Your task to perform on an android device: choose inbox layout in the gmail app Image 0: 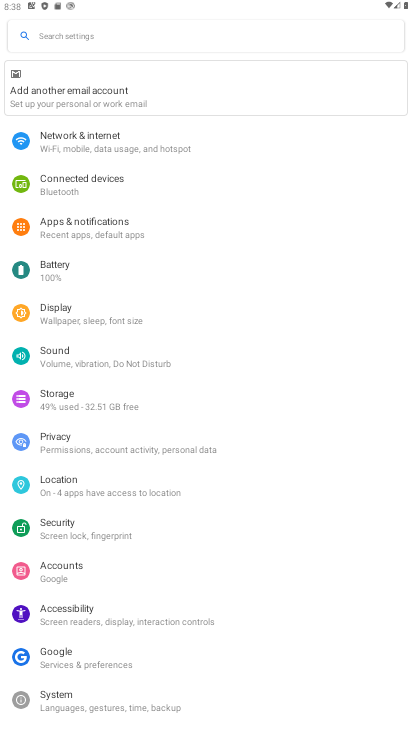
Step 0: press home button
Your task to perform on an android device: choose inbox layout in the gmail app Image 1: 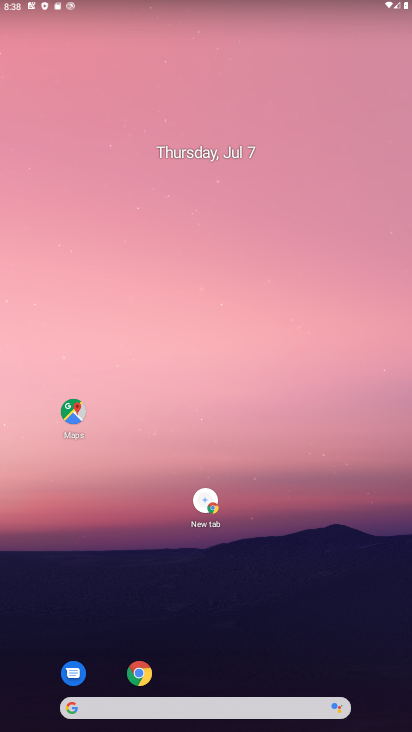
Step 1: drag from (302, 581) to (267, 121)
Your task to perform on an android device: choose inbox layout in the gmail app Image 2: 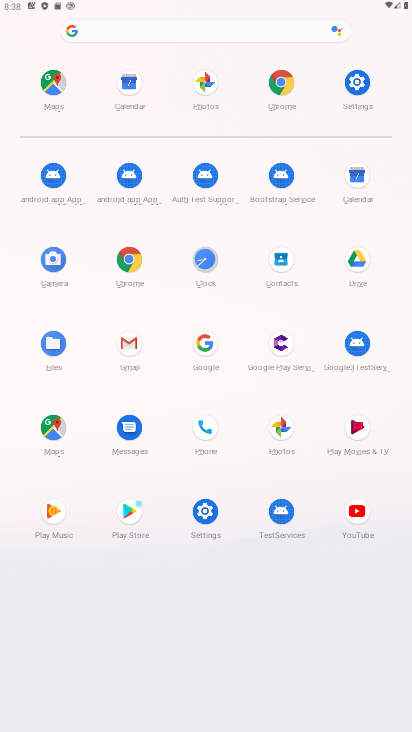
Step 2: click (121, 341)
Your task to perform on an android device: choose inbox layout in the gmail app Image 3: 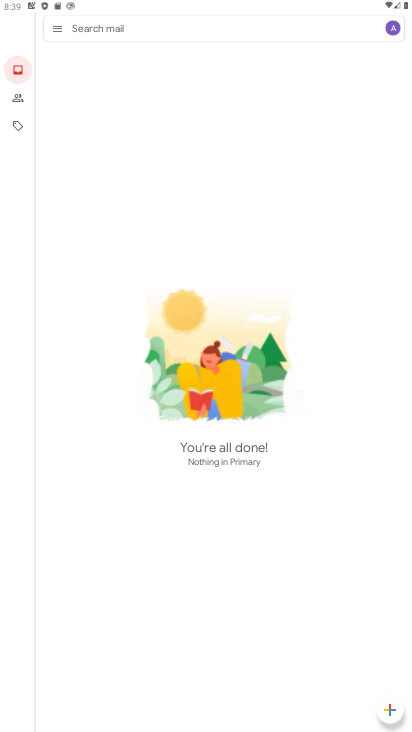
Step 3: click (59, 25)
Your task to perform on an android device: choose inbox layout in the gmail app Image 4: 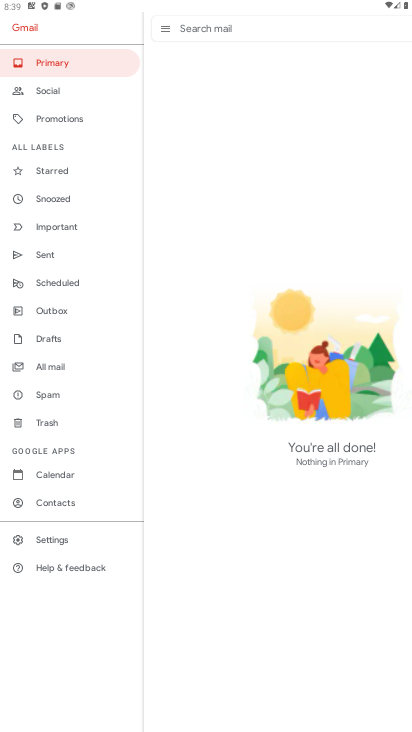
Step 4: click (67, 543)
Your task to perform on an android device: choose inbox layout in the gmail app Image 5: 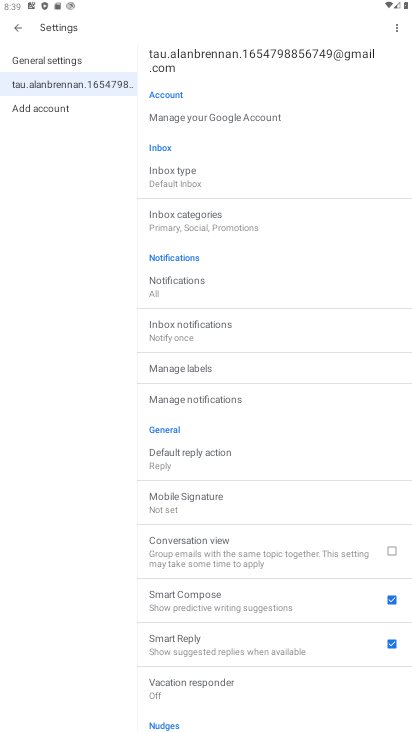
Step 5: click (74, 83)
Your task to perform on an android device: choose inbox layout in the gmail app Image 6: 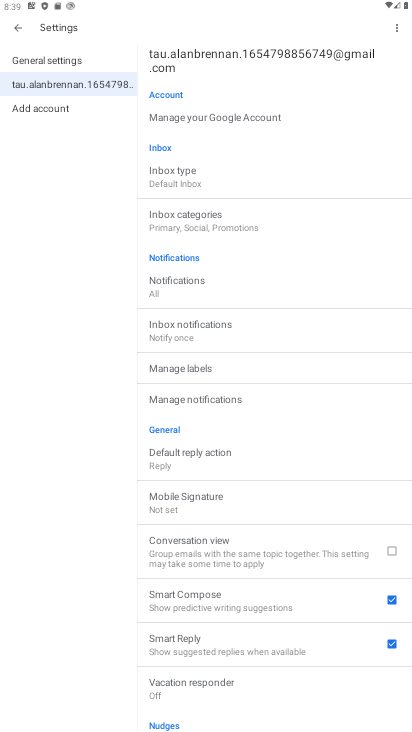
Step 6: click (169, 174)
Your task to perform on an android device: choose inbox layout in the gmail app Image 7: 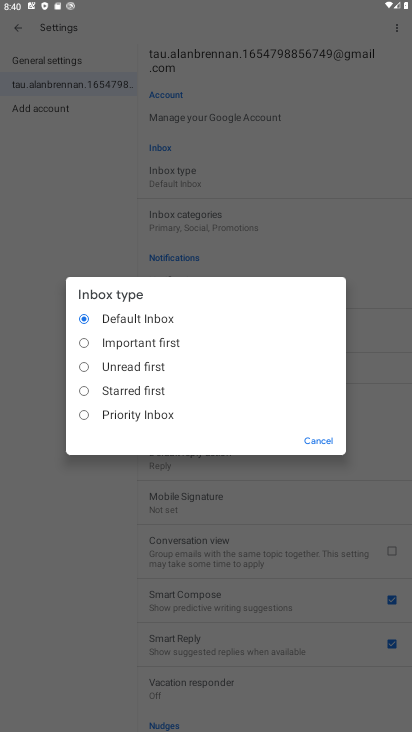
Step 7: click (158, 419)
Your task to perform on an android device: choose inbox layout in the gmail app Image 8: 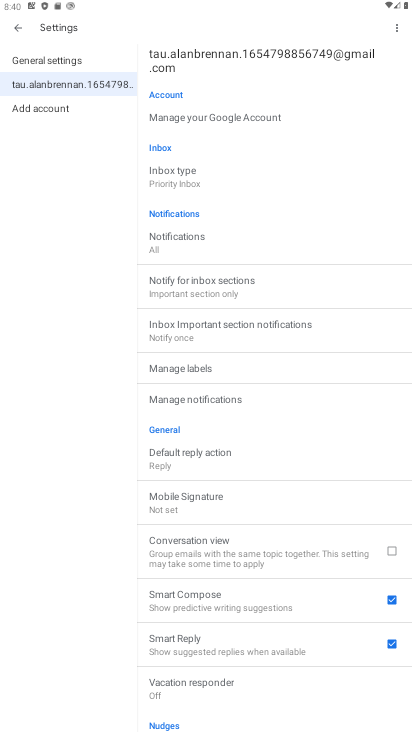
Step 8: task complete